Your task to perform on an android device: Open CNN.com Image 0: 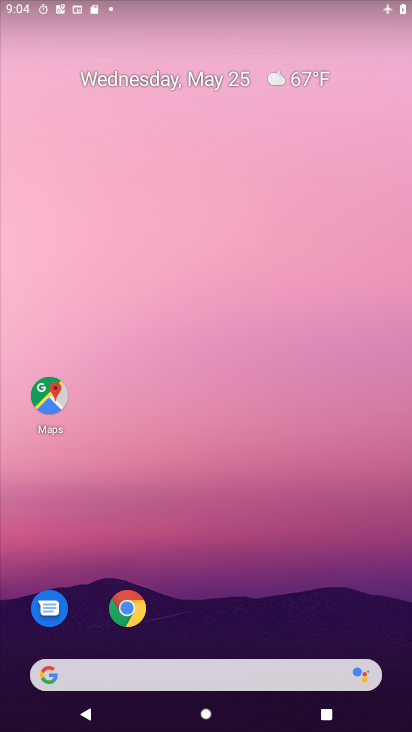
Step 0: click (128, 611)
Your task to perform on an android device: Open CNN.com Image 1: 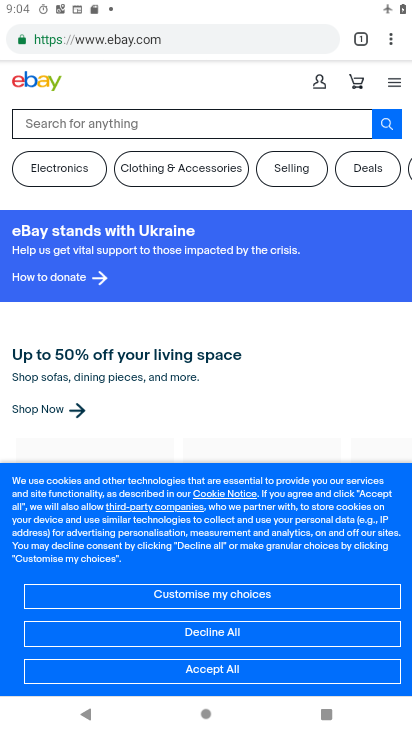
Step 1: click (393, 43)
Your task to perform on an android device: Open CNN.com Image 2: 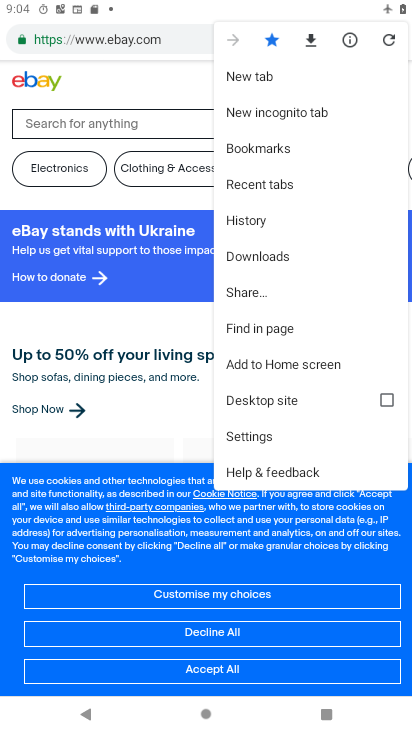
Step 2: click (254, 71)
Your task to perform on an android device: Open CNN.com Image 3: 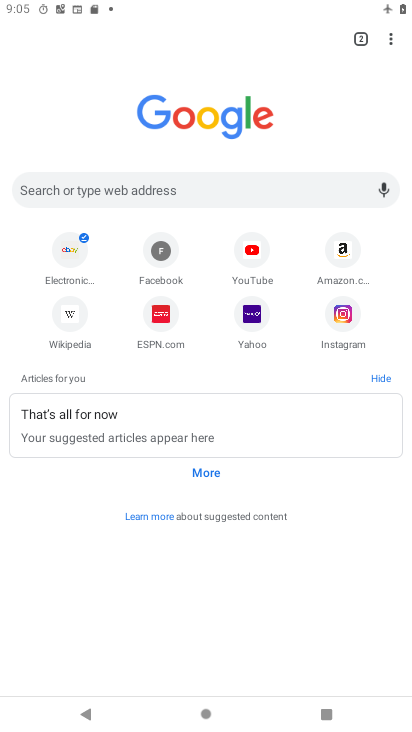
Step 3: click (219, 188)
Your task to perform on an android device: Open CNN.com Image 4: 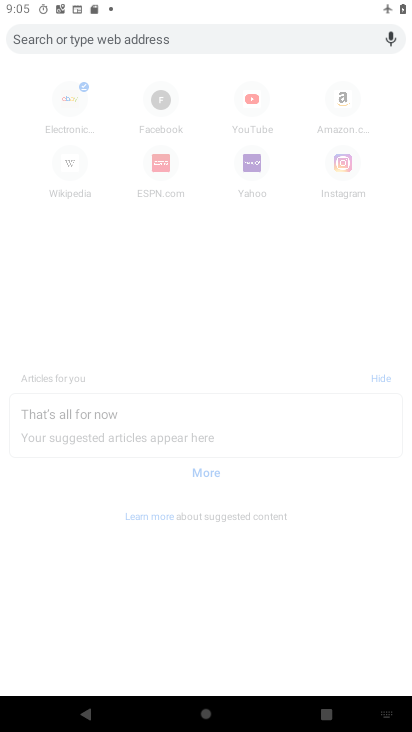
Step 4: type "CNN.com"
Your task to perform on an android device: Open CNN.com Image 5: 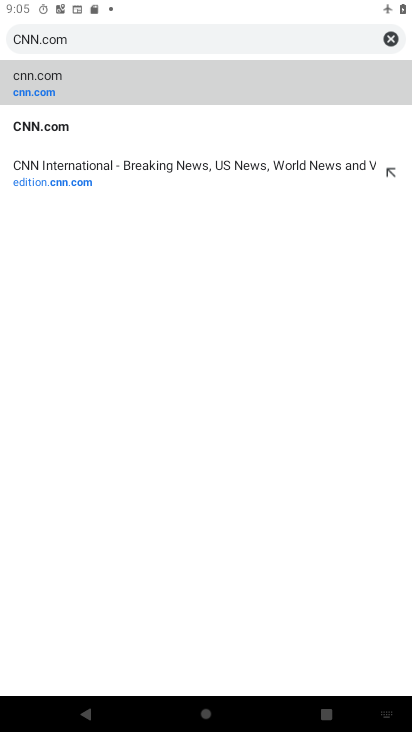
Step 5: click (34, 75)
Your task to perform on an android device: Open CNN.com Image 6: 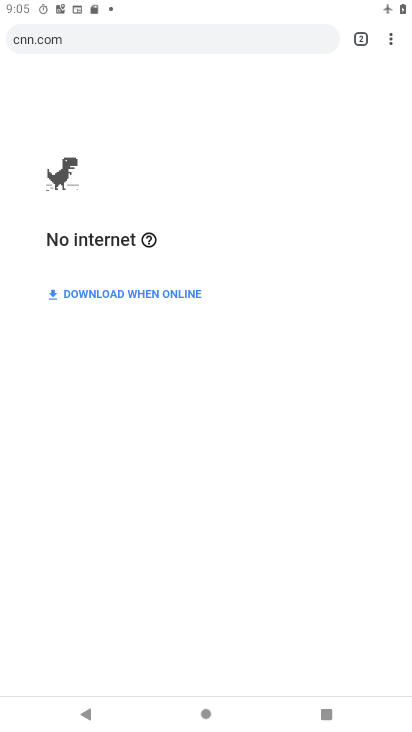
Step 6: task complete